Your task to perform on an android device: Empty the shopping cart on amazon. Add "panasonic triple a" to the cart on amazon Image 0: 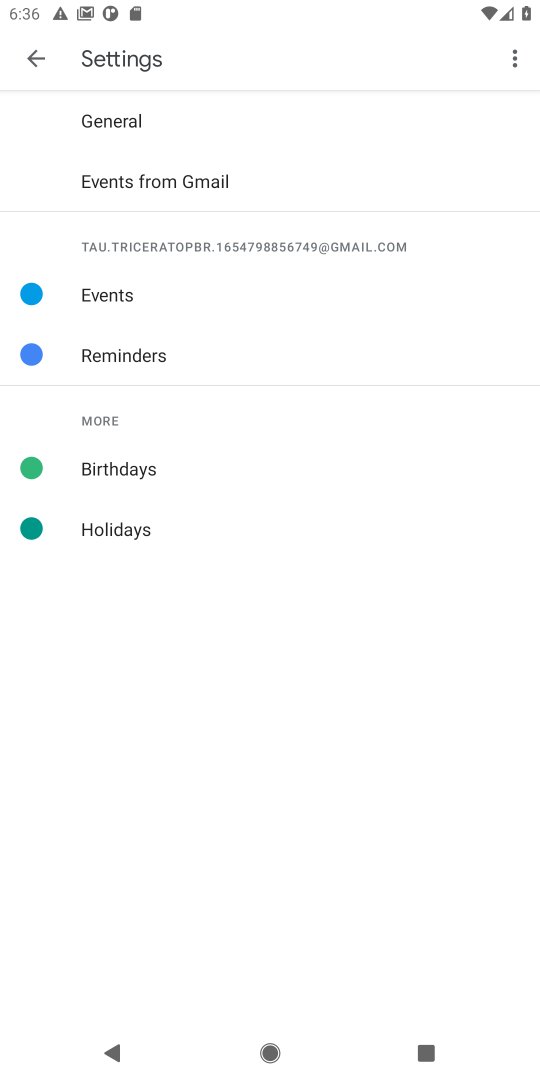
Step 0: press home button
Your task to perform on an android device: Empty the shopping cart on amazon. Add "panasonic triple a" to the cart on amazon Image 1: 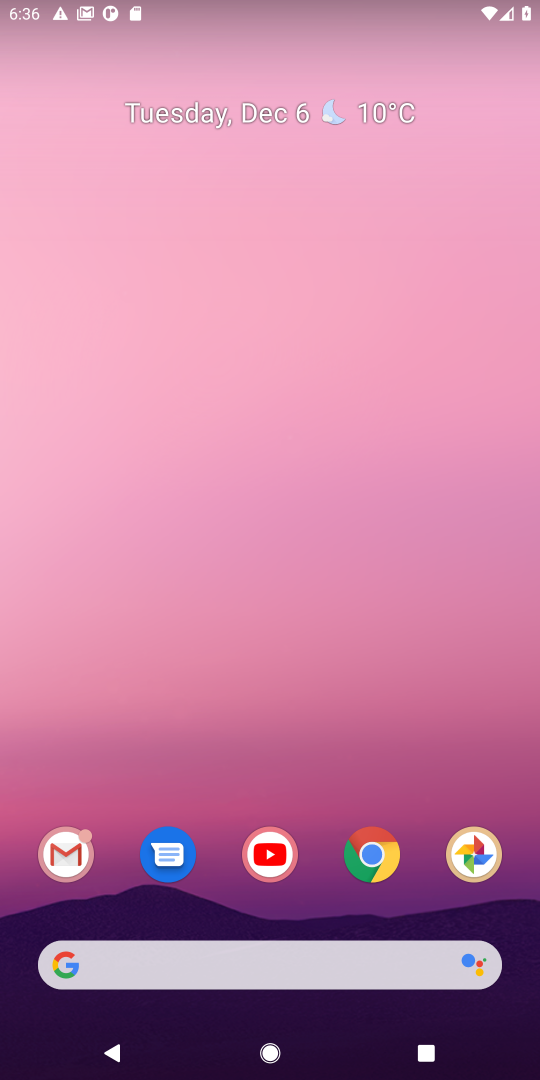
Step 1: click (378, 852)
Your task to perform on an android device: Empty the shopping cart on amazon. Add "panasonic triple a" to the cart on amazon Image 2: 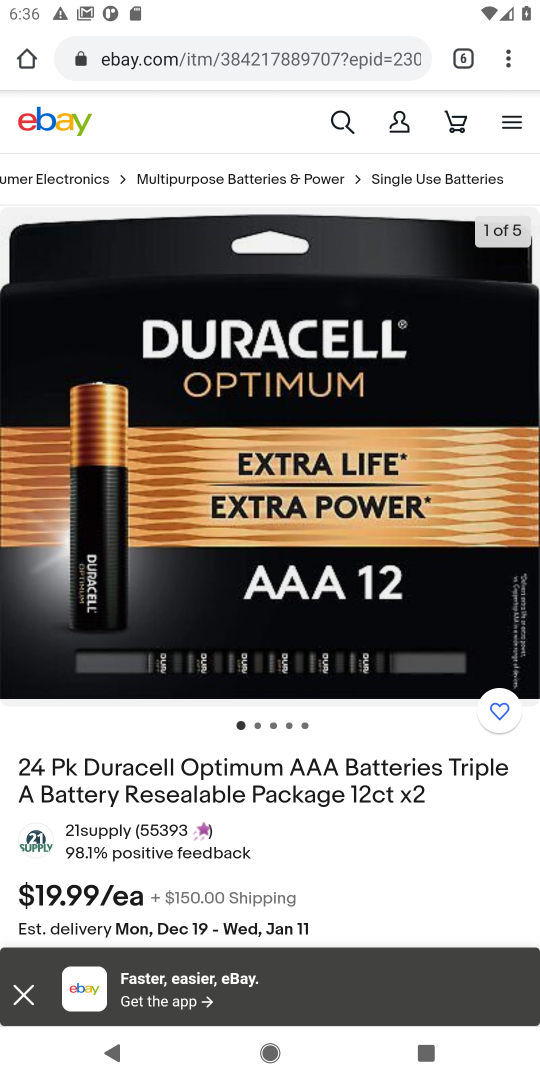
Step 2: click (462, 61)
Your task to perform on an android device: Empty the shopping cart on amazon. Add "panasonic triple a" to the cart on amazon Image 3: 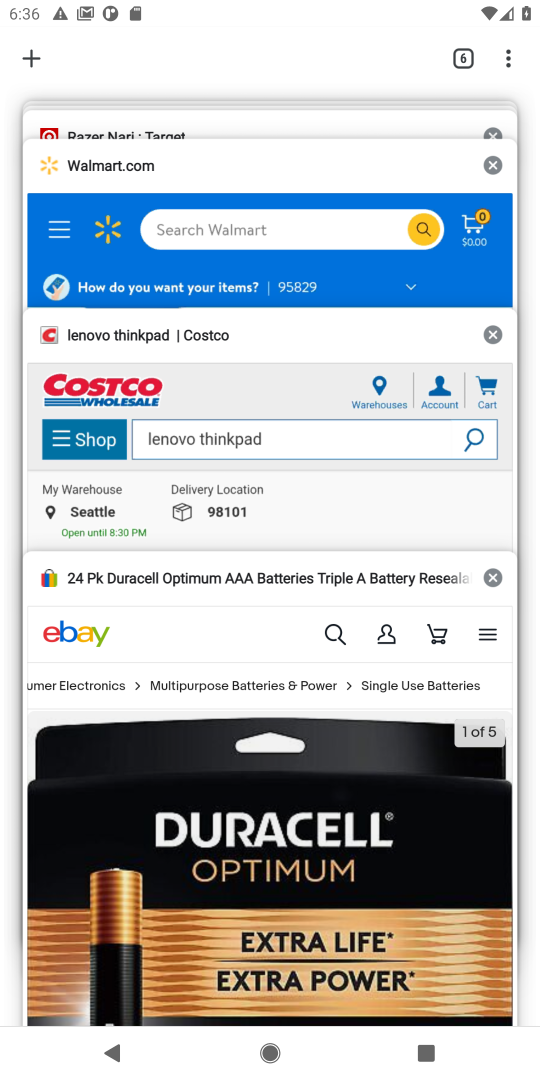
Step 3: click (32, 68)
Your task to perform on an android device: Empty the shopping cart on amazon. Add "panasonic triple a" to the cart on amazon Image 4: 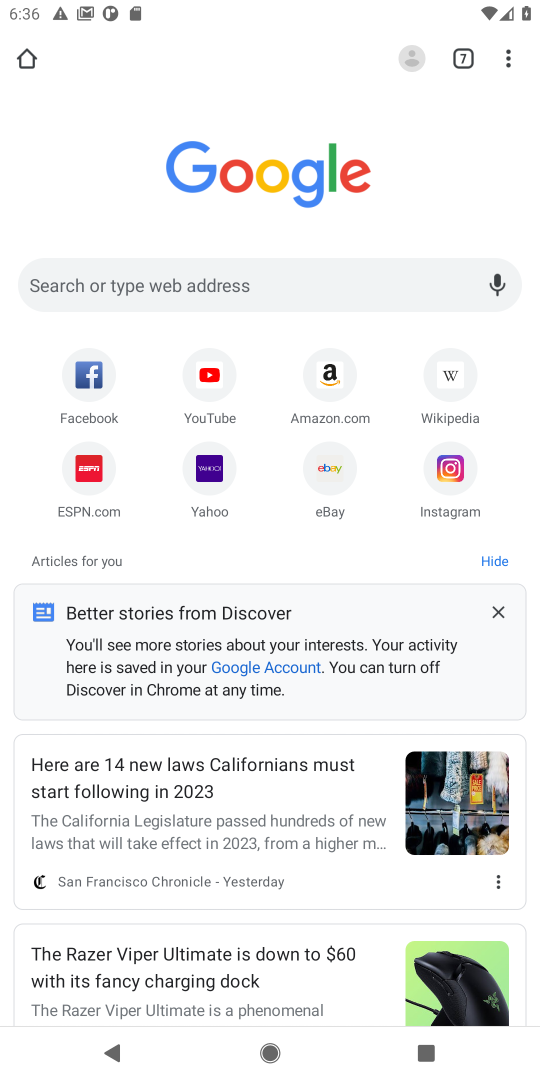
Step 4: click (330, 381)
Your task to perform on an android device: Empty the shopping cart on amazon. Add "panasonic triple a" to the cart on amazon Image 5: 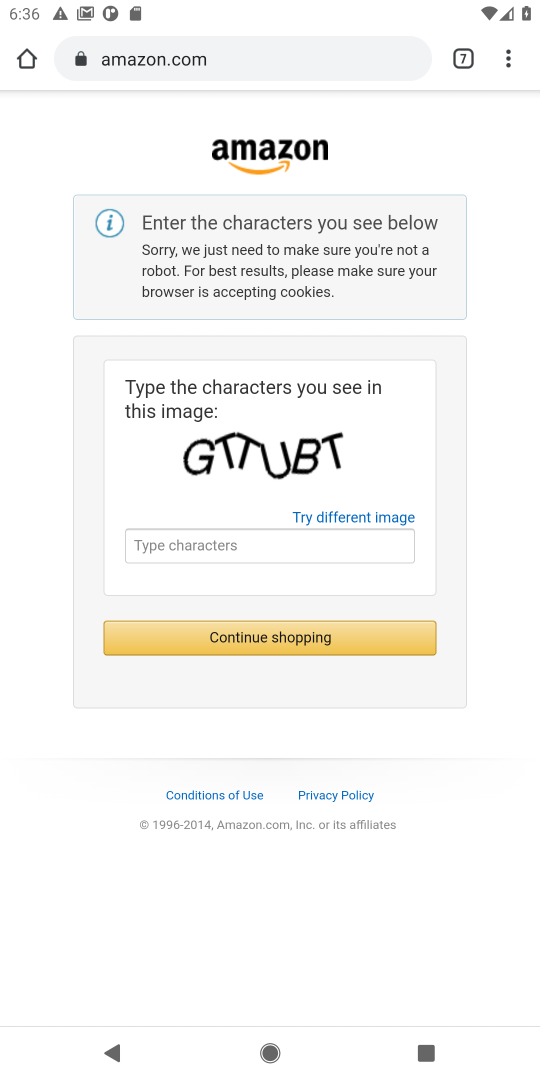
Step 5: click (222, 555)
Your task to perform on an android device: Empty the shopping cart on amazon. Add "panasonic triple a" to the cart on amazon Image 6: 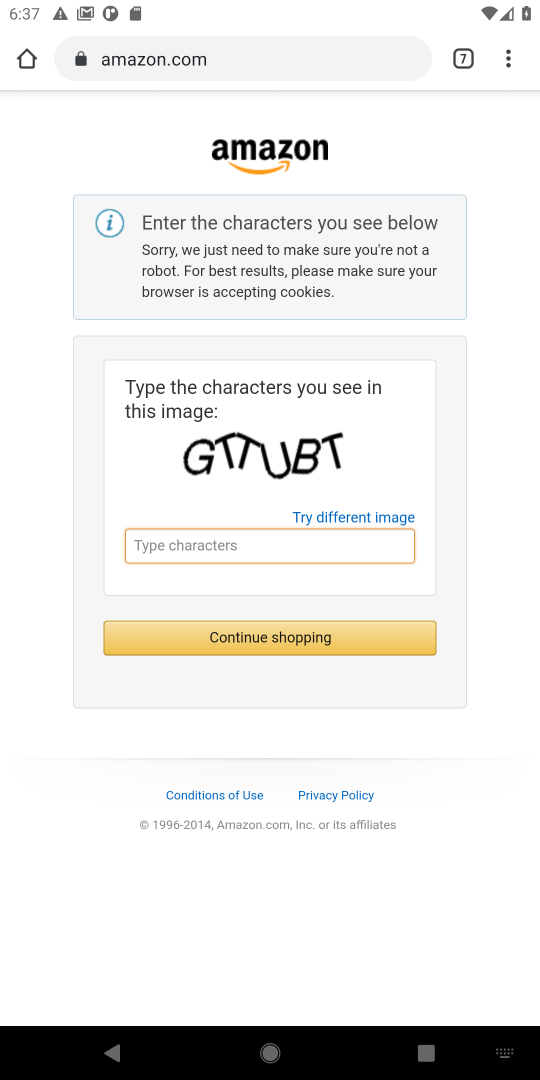
Step 6: type "GTTUBT"
Your task to perform on an android device: Empty the shopping cart on amazon. Add "panasonic triple a" to the cart on amazon Image 7: 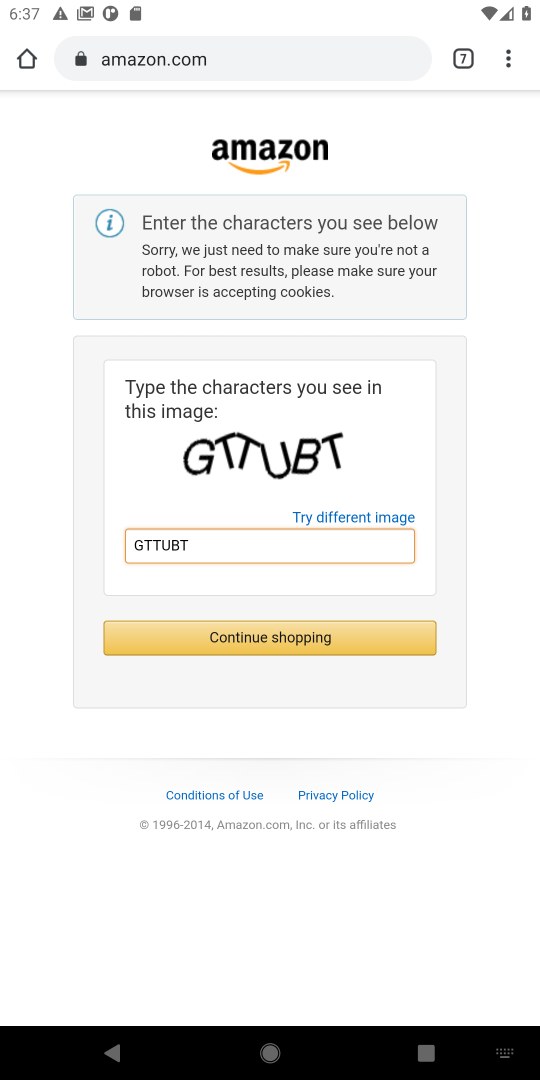
Step 7: click (270, 640)
Your task to perform on an android device: Empty the shopping cart on amazon. Add "panasonic triple a" to the cart on amazon Image 8: 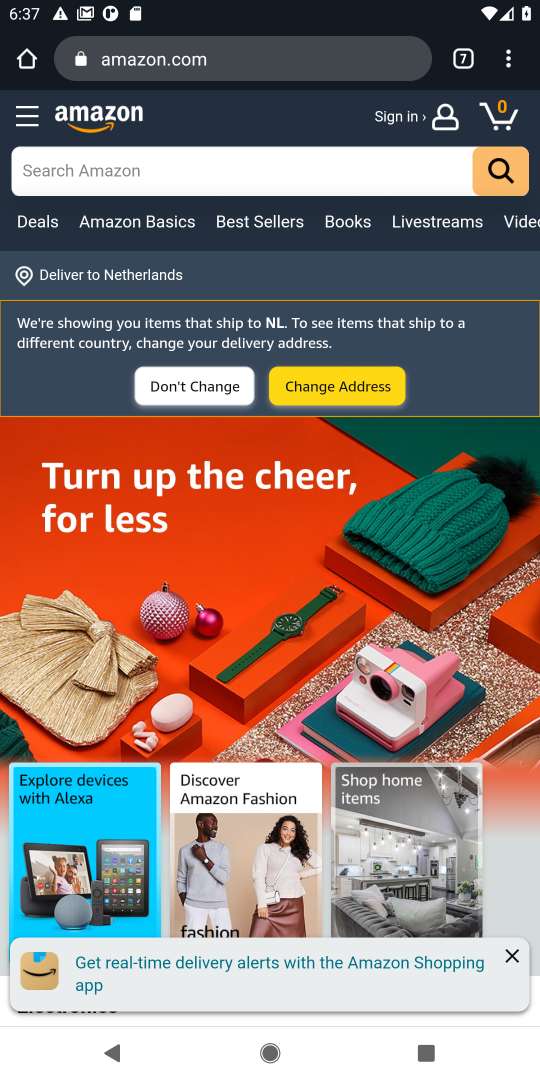
Step 8: click (125, 158)
Your task to perform on an android device: Empty the shopping cart on amazon. Add "panasonic triple a" to the cart on amazon Image 9: 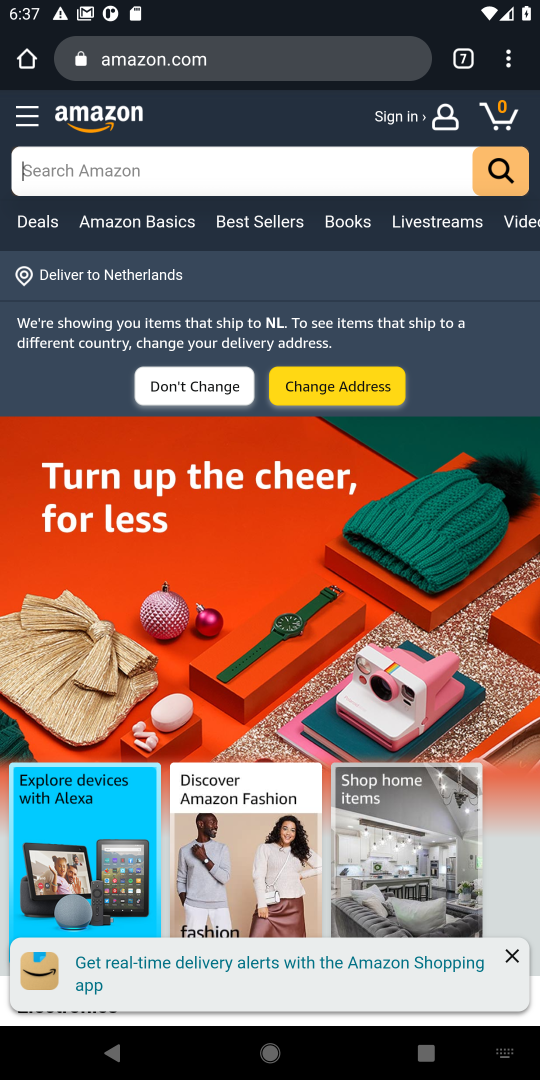
Step 9: type "panasonic triple a"
Your task to perform on an android device: Empty the shopping cart on amazon. Add "panasonic triple a" to the cart on amazon Image 10: 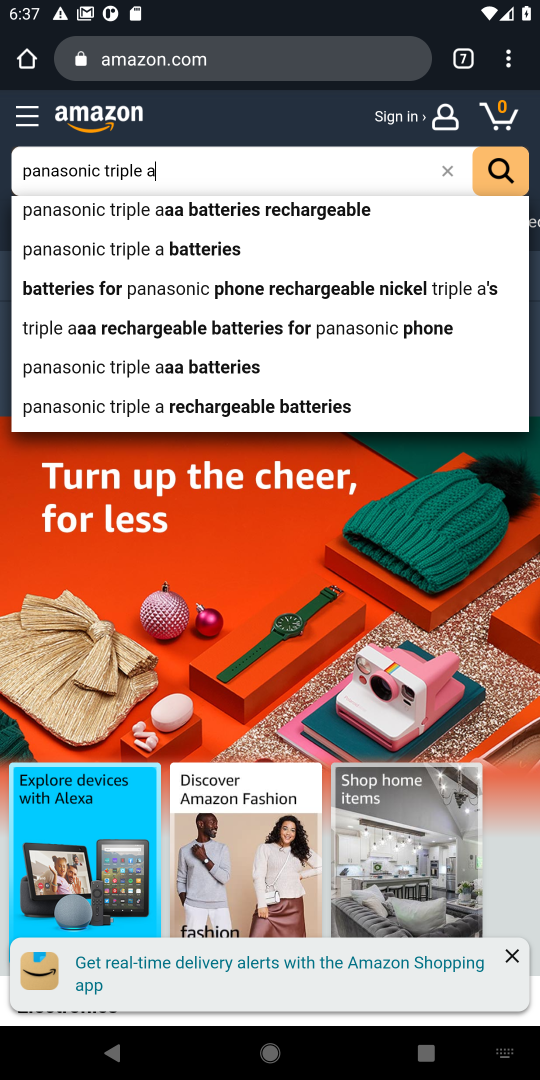
Step 10: click (206, 249)
Your task to perform on an android device: Empty the shopping cart on amazon. Add "panasonic triple a" to the cart on amazon Image 11: 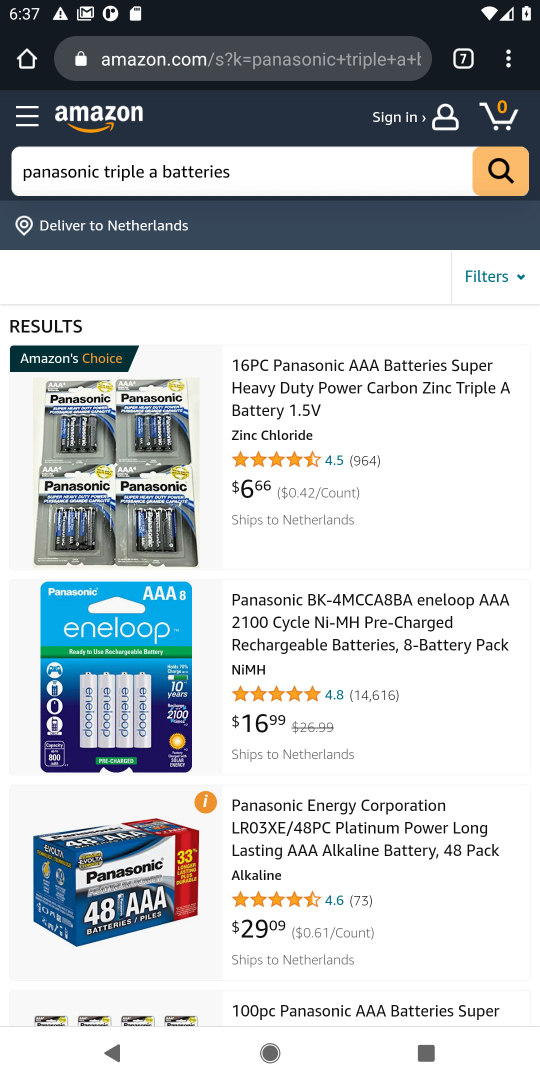
Step 11: click (410, 384)
Your task to perform on an android device: Empty the shopping cart on amazon. Add "panasonic triple a" to the cart on amazon Image 12: 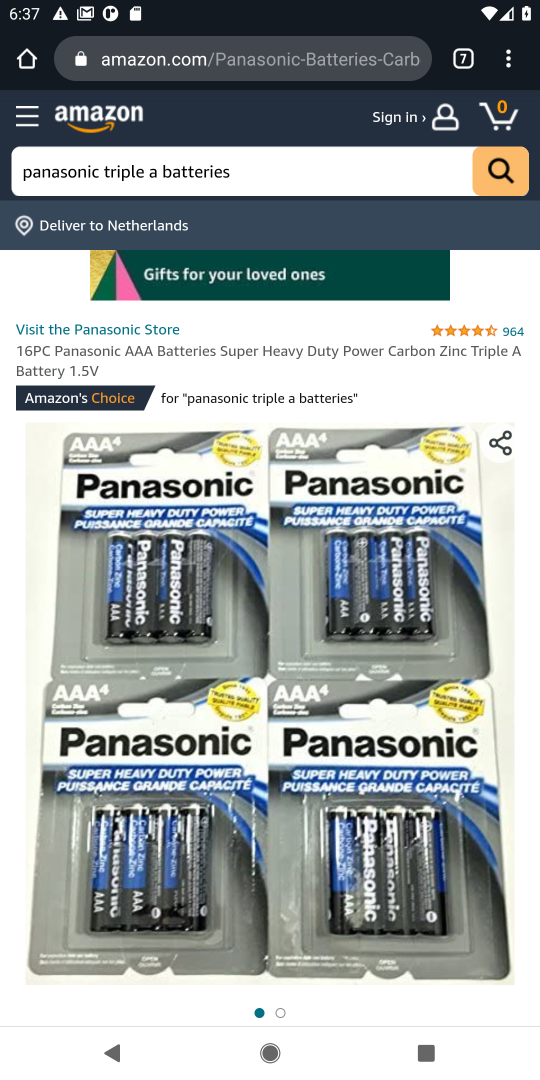
Step 12: task complete